Your task to perform on an android device: Go to Yahoo.com Image 0: 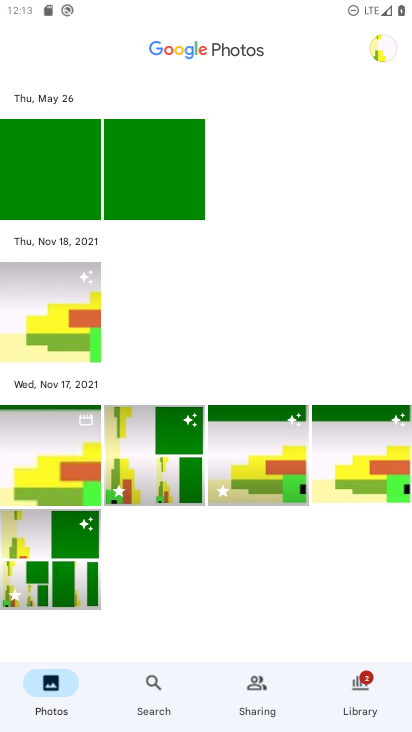
Step 0: press home button
Your task to perform on an android device: Go to Yahoo.com Image 1: 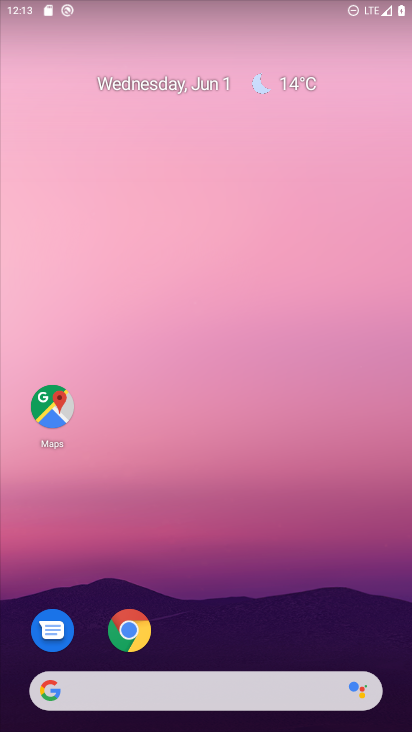
Step 1: click (123, 628)
Your task to perform on an android device: Go to Yahoo.com Image 2: 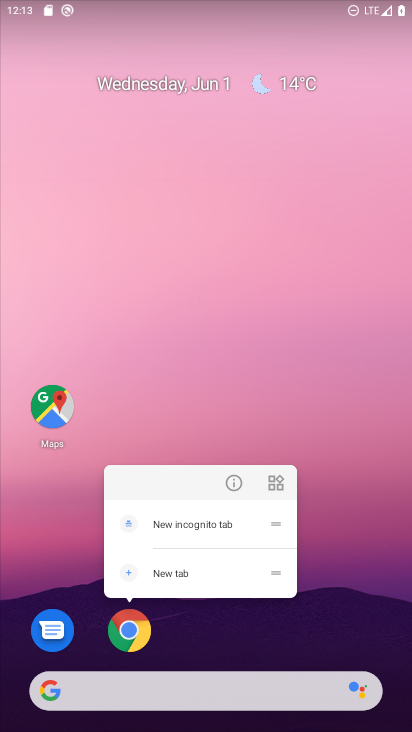
Step 2: click (136, 637)
Your task to perform on an android device: Go to Yahoo.com Image 3: 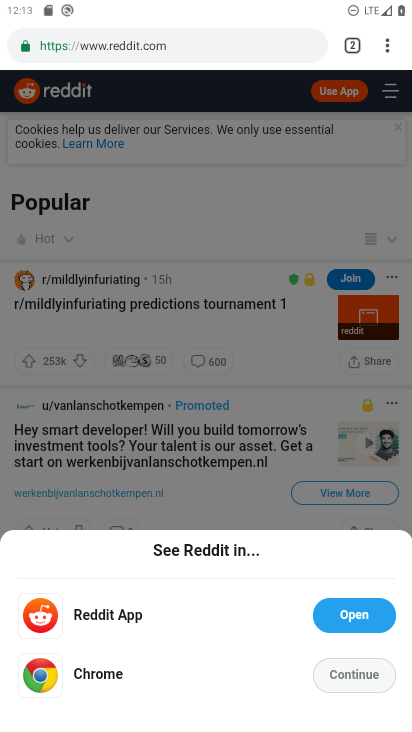
Step 3: click (262, 54)
Your task to perform on an android device: Go to Yahoo.com Image 4: 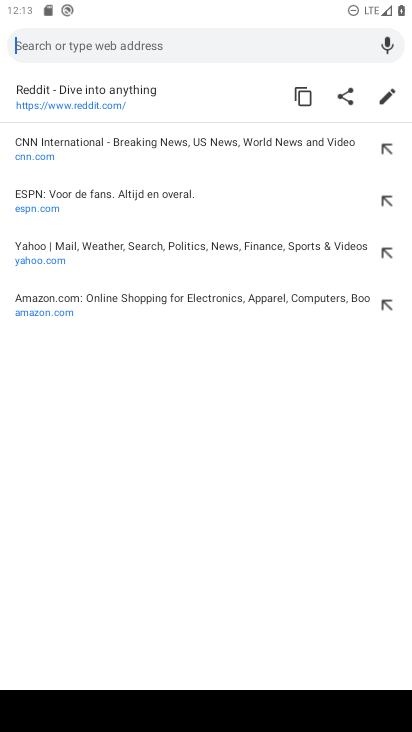
Step 4: click (55, 262)
Your task to perform on an android device: Go to Yahoo.com Image 5: 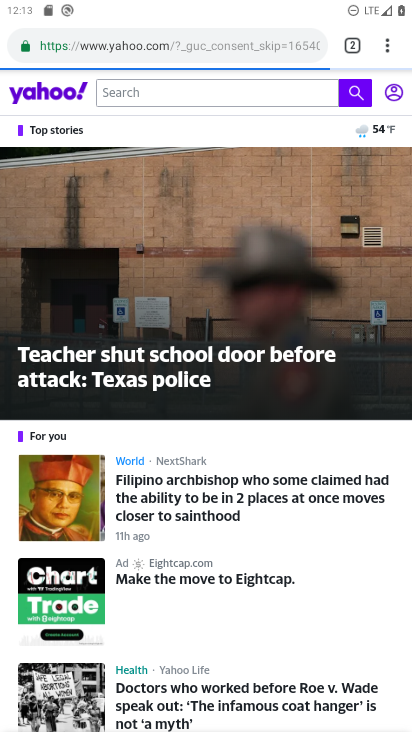
Step 5: task complete